Your task to perform on an android device: Open the stopwatch Image 0: 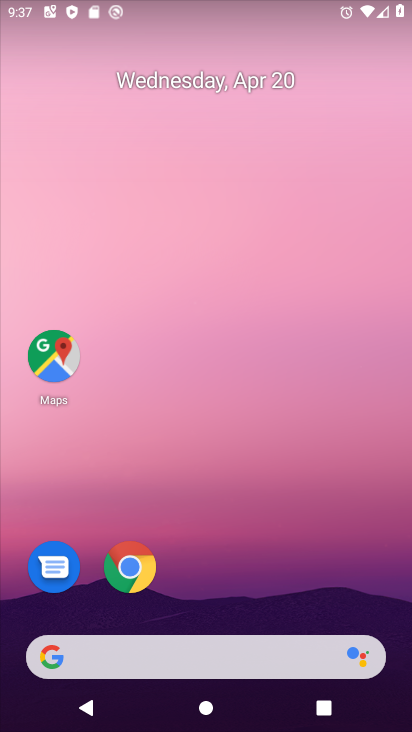
Step 0: drag from (268, 304) to (268, 137)
Your task to perform on an android device: Open the stopwatch Image 1: 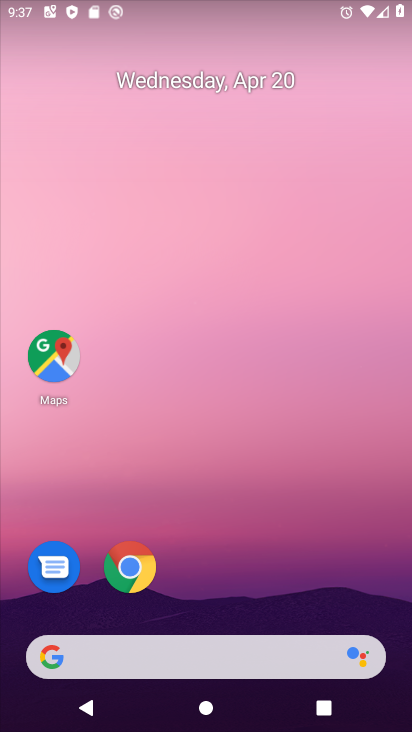
Step 1: drag from (227, 673) to (302, 159)
Your task to perform on an android device: Open the stopwatch Image 2: 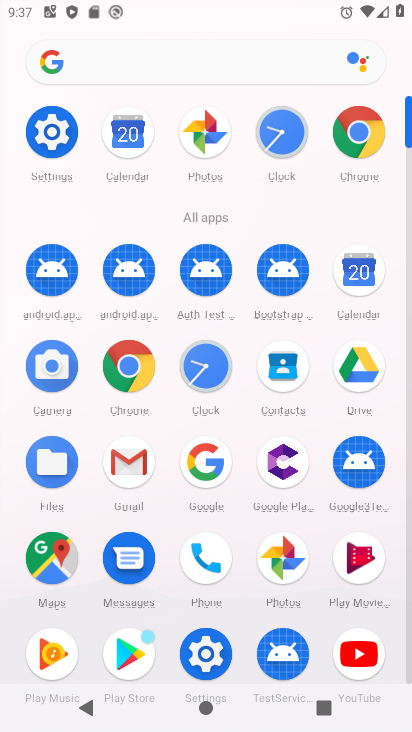
Step 2: click (291, 129)
Your task to perform on an android device: Open the stopwatch Image 3: 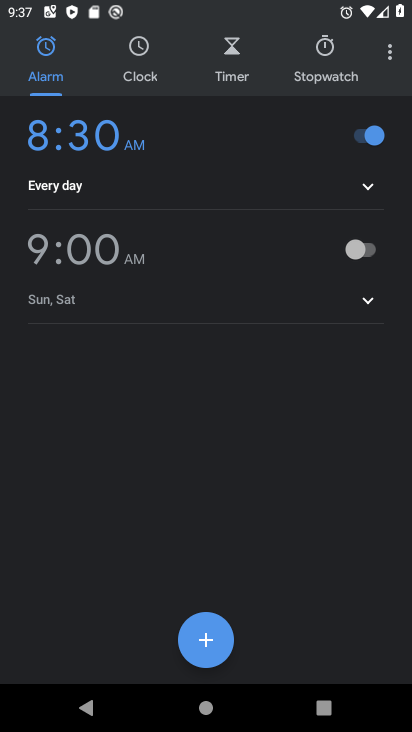
Step 3: click (319, 63)
Your task to perform on an android device: Open the stopwatch Image 4: 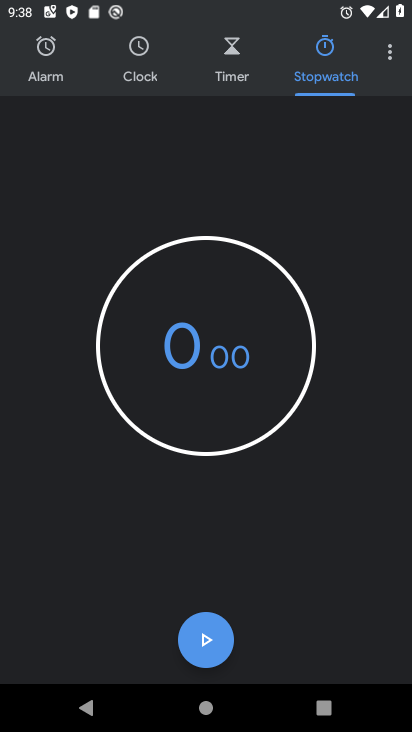
Step 4: click (214, 626)
Your task to perform on an android device: Open the stopwatch Image 5: 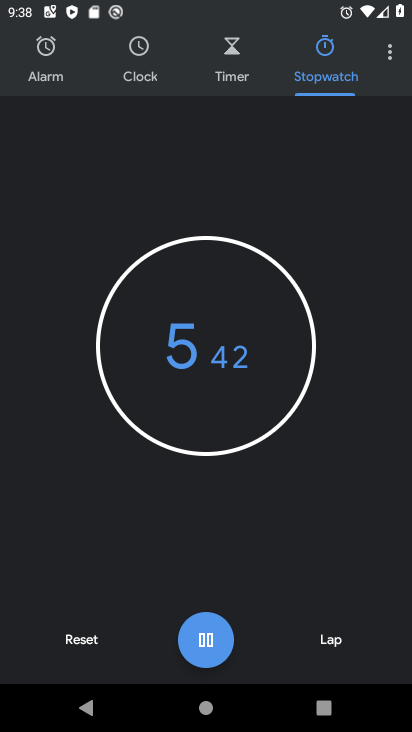
Step 5: click (213, 624)
Your task to perform on an android device: Open the stopwatch Image 6: 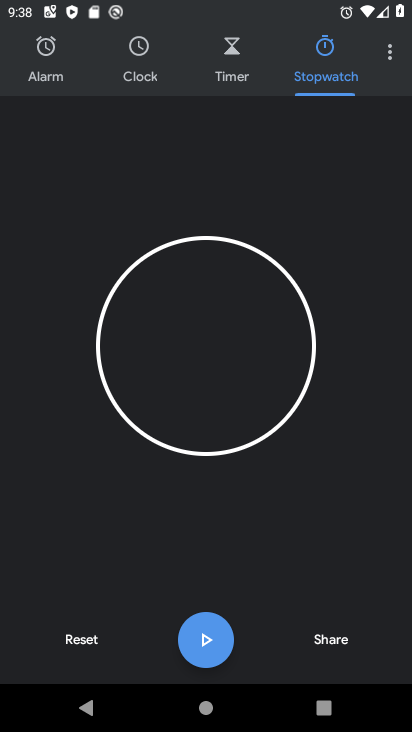
Step 6: task complete